Your task to perform on an android device: Go to Wikipedia Image 0: 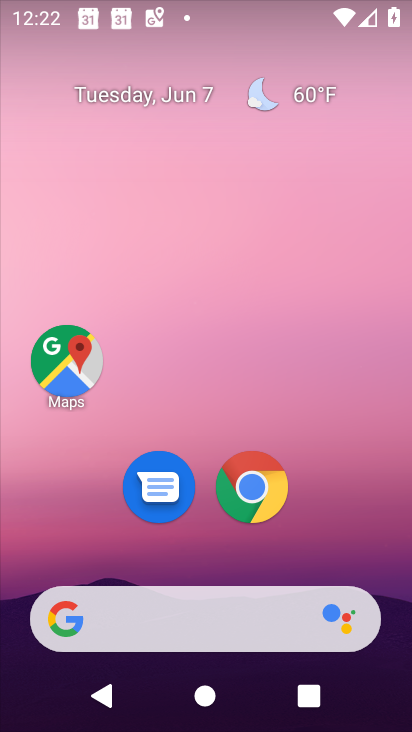
Step 0: click (267, 494)
Your task to perform on an android device: Go to Wikipedia Image 1: 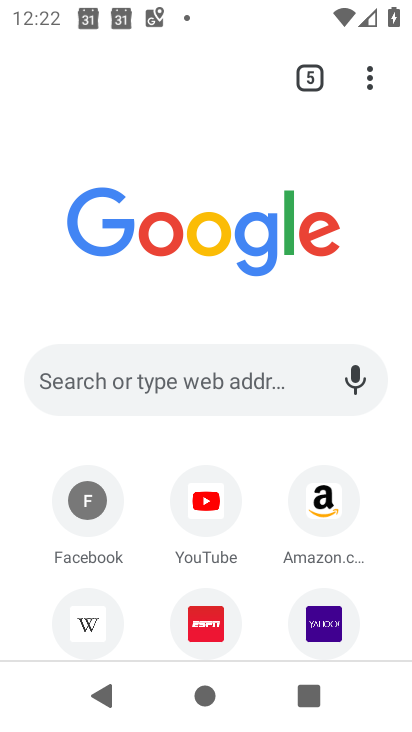
Step 1: click (78, 631)
Your task to perform on an android device: Go to Wikipedia Image 2: 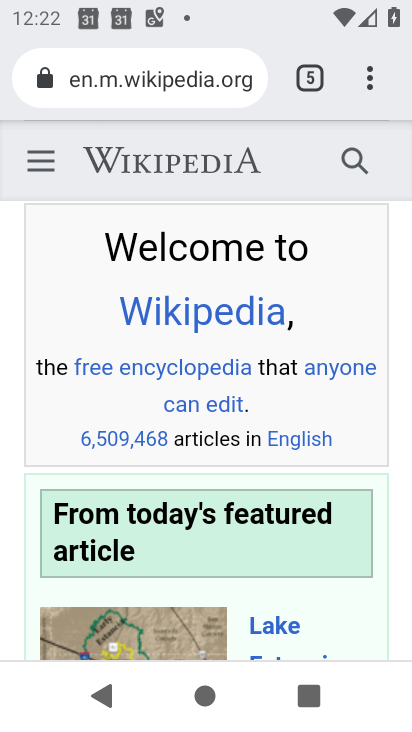
Step 2: task complete